Your task to perform on an android device: set the timer Image 0: 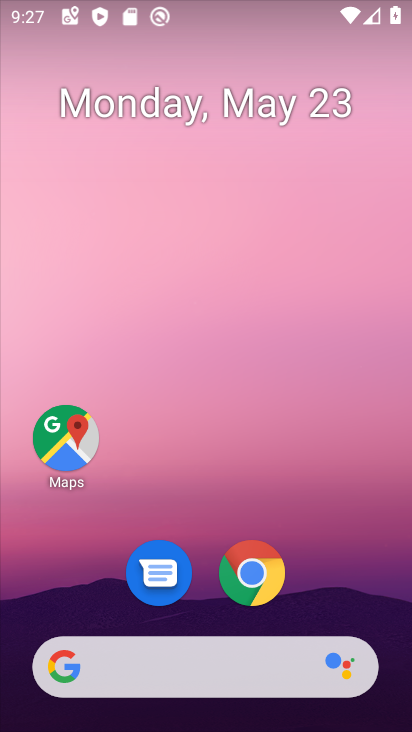
Step 0: drag from (384, 609) to (371, 247)
Your task to perform on an android device: set the timer Image 1: 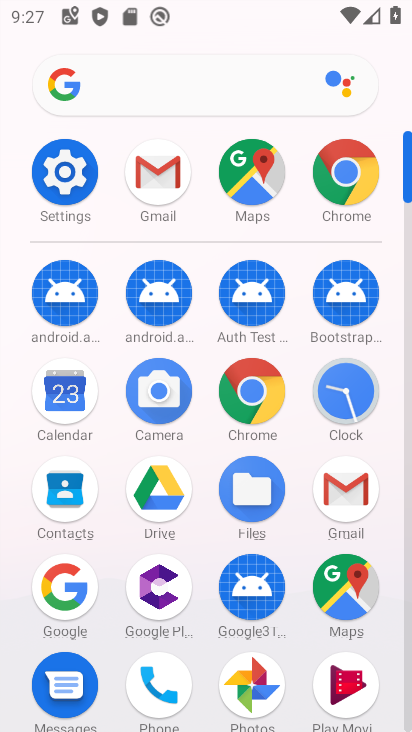
Step 1: click (353, 404)
Your task to perform on an android device: set the timer Image 2: 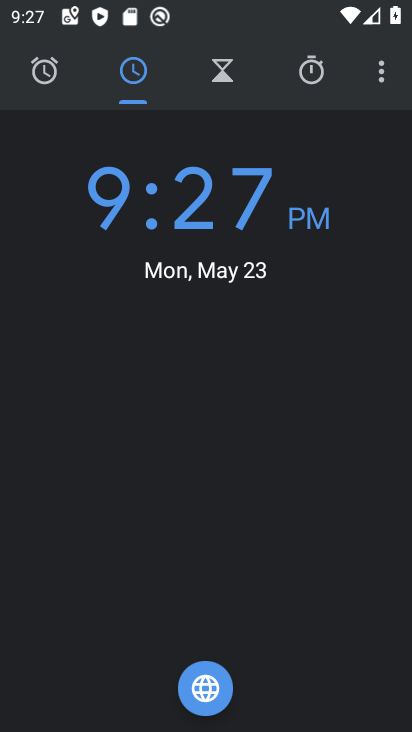
Step 2: click (226, 84)
Your task to perform on an android device: set the timer Image 3: 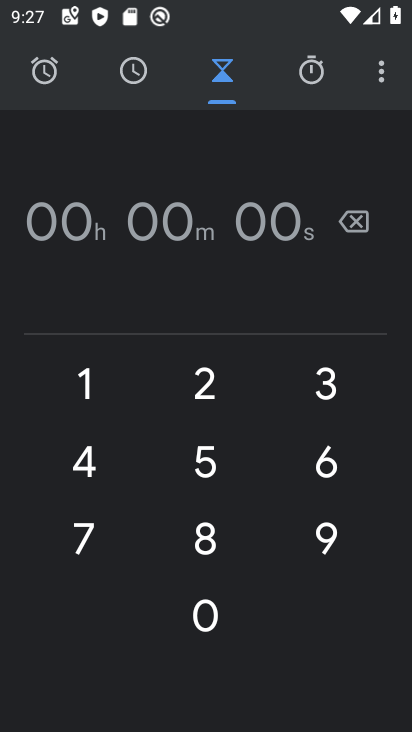
Step 3: click (204, 453)
Your task to perform on an android device: set the timer Image 4: 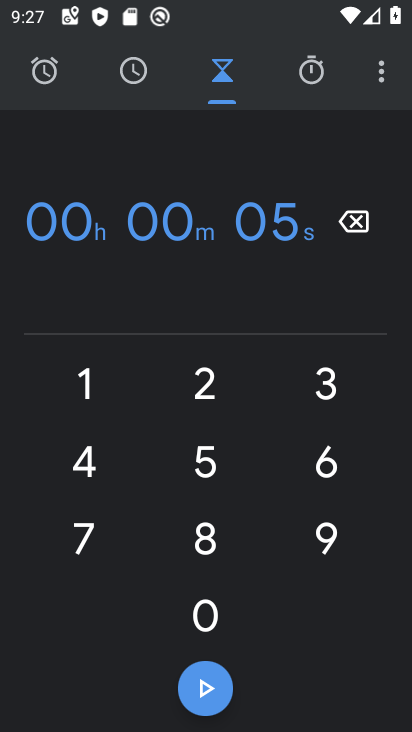
Step 4: task complete